Your task to perform on an android device: check google app version Image 0: 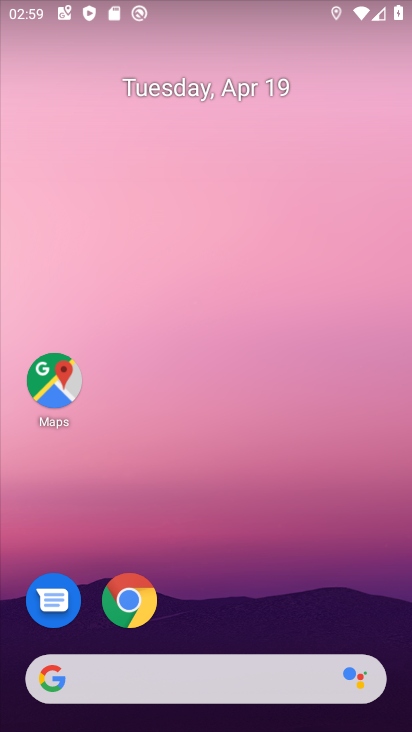
Step 0: drag from (337, 542) to (292, 94)
Your task to perform on an android device: check google app version Image 1: 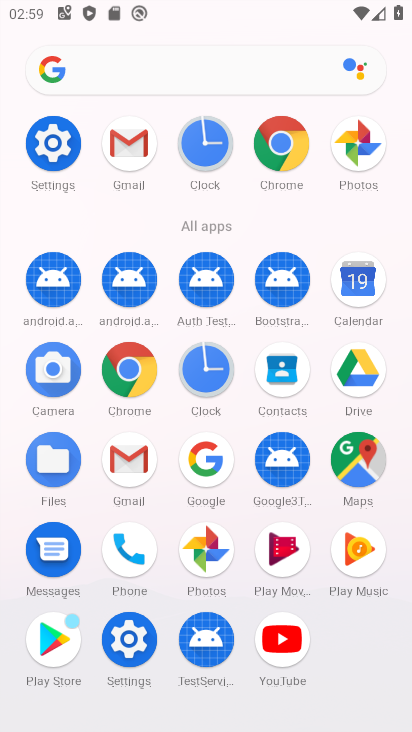
Step 1: click (218, 463)
Your task to perform on an android device: check google app version Image 2: 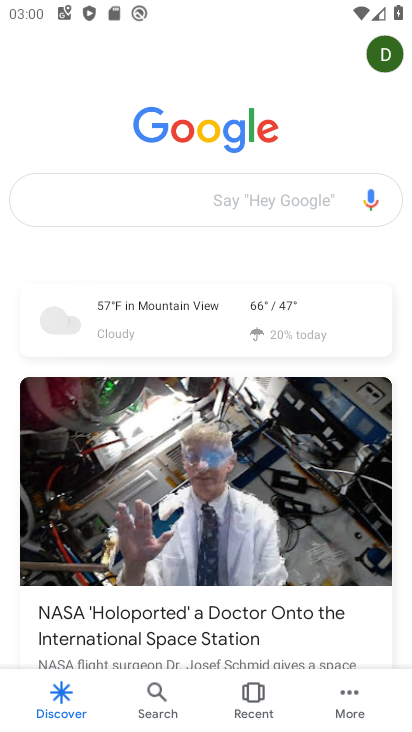
Step 2: click (353, 706)
Your task to perform on an android device: check google app version Image 3: 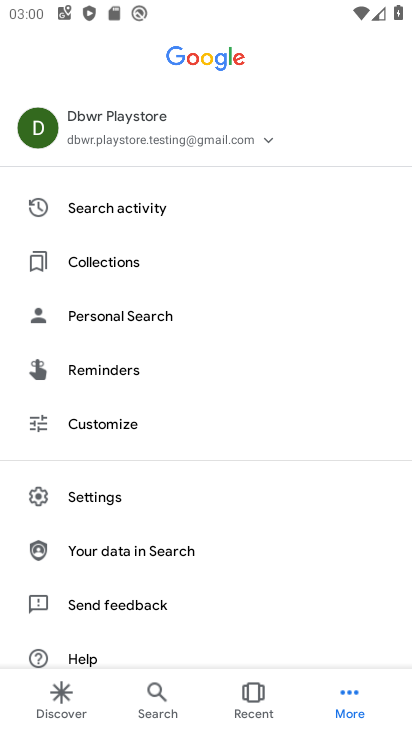
Step 3: click (214, 655)
Your task to perform on an android device: check google app version Image 4: 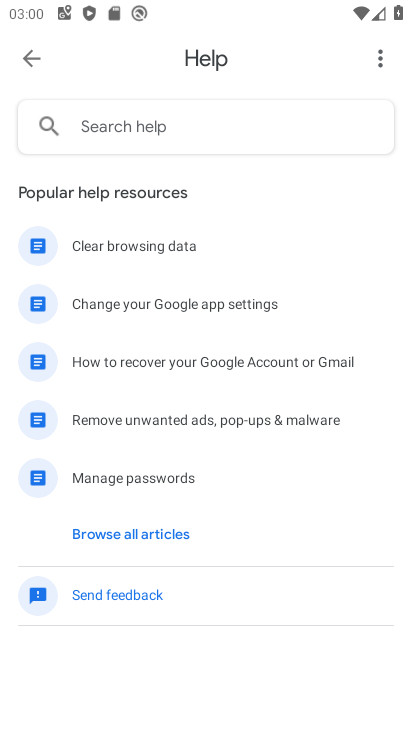
Step 4: click (385, 52)
Your task to perform on an android device: check google app version Image 5: 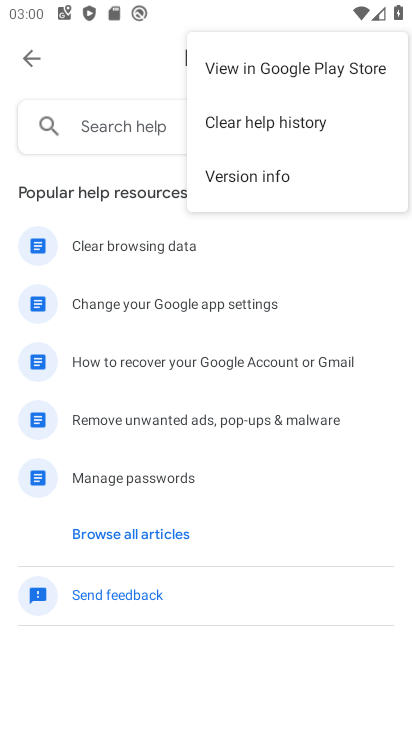
Step 5: click (343, 168)
Your task to perform on an android device: check google app version Image 6: 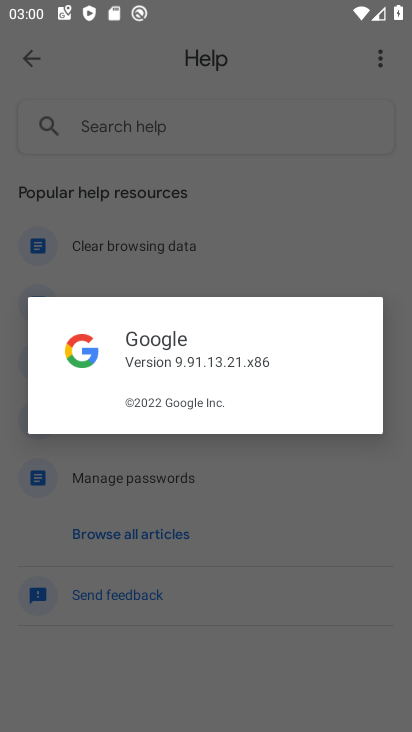
Step 6: task complete